Your task to perform on an android device: Search for the best lawnmowers on Lowes.com Image 0: 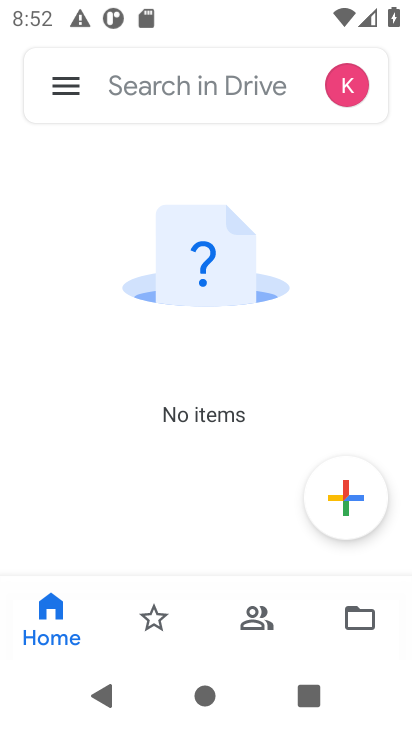
Step 0: task complete